Your task to perform on an android device: install app "LiveIn - Share Your Moment" Image 0: 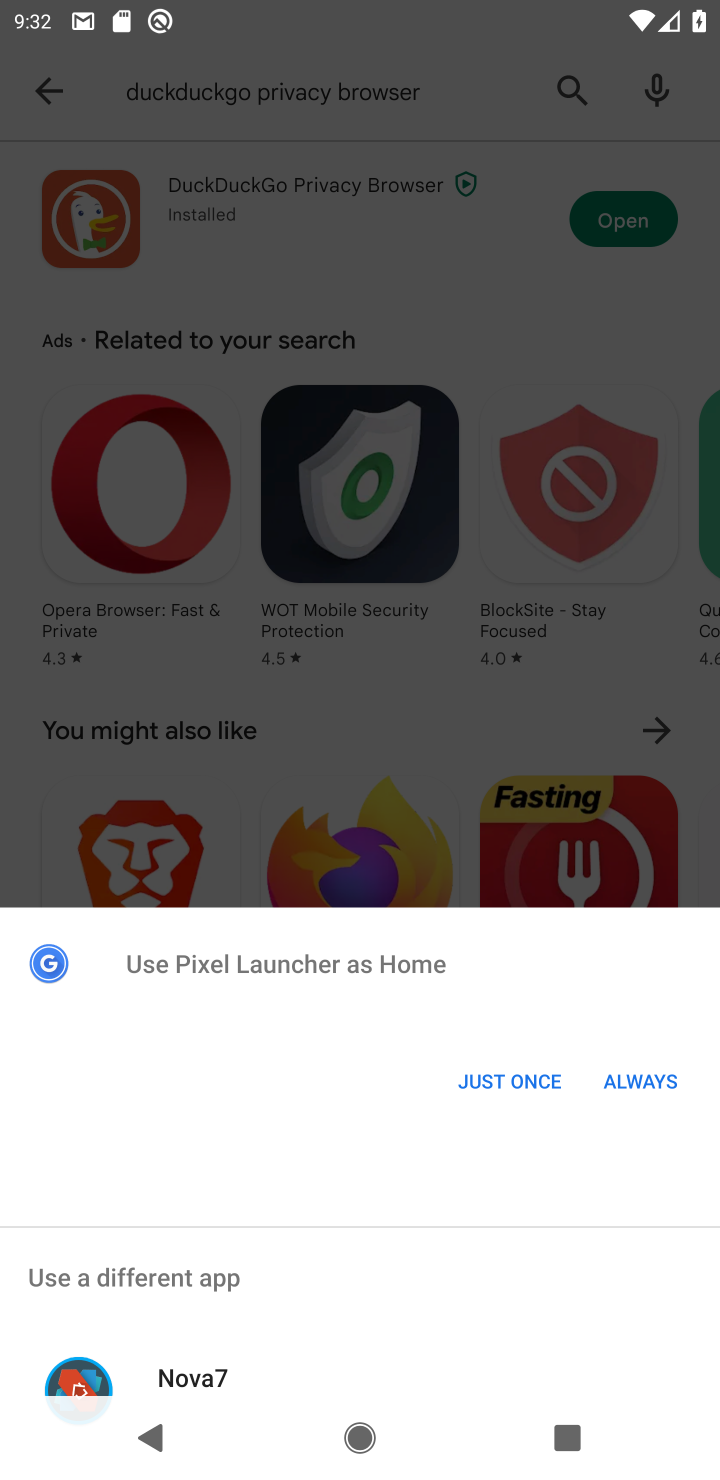
Step 0: press back button
Your task to perform on an android device: install app "LiveIn - Share Your Moment" Image 1: 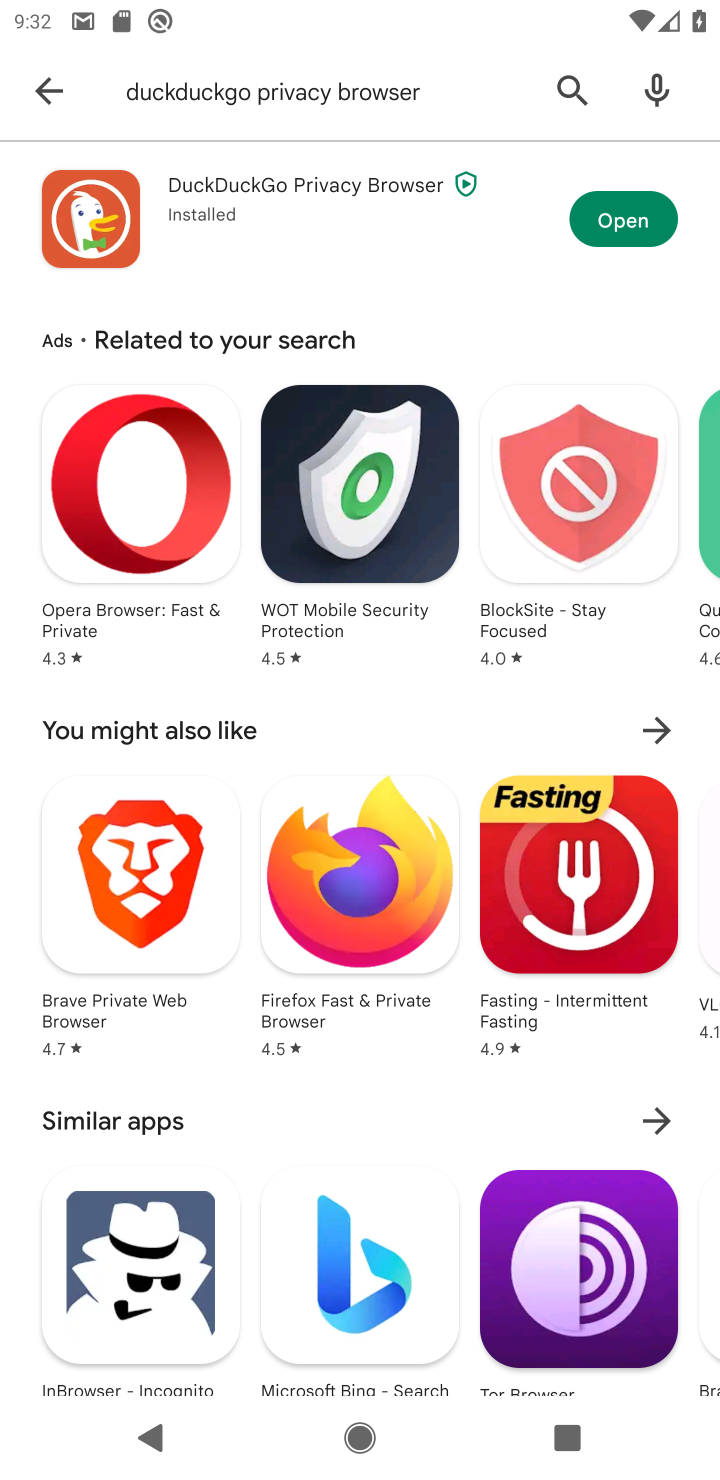
Step 1: click (570, 86)
Your task to perform on an android device: install app "LiveIn - Share Your Moment" Image 2: 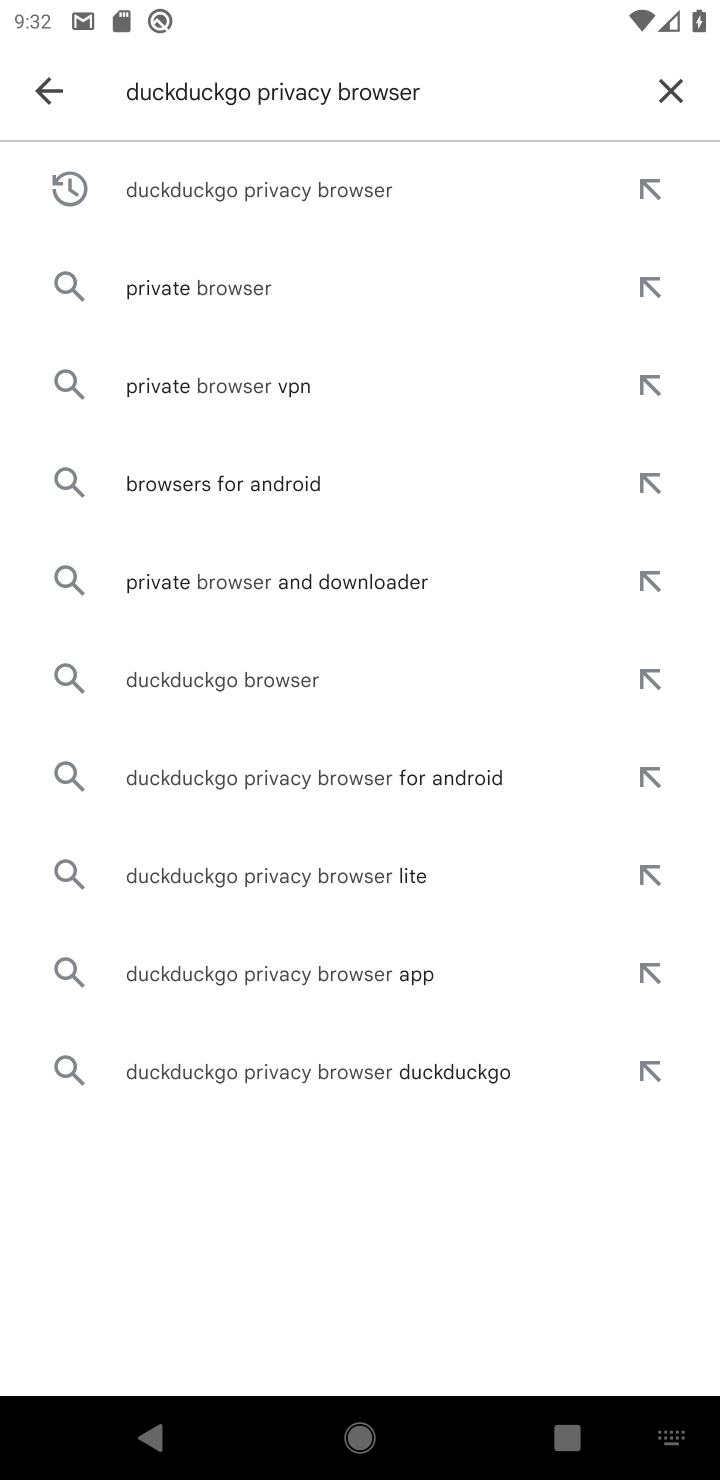
Step 2: click (671, 83)
Your task to perform on an android device: install app "LiveIn - Share Your Moment" Image 3: 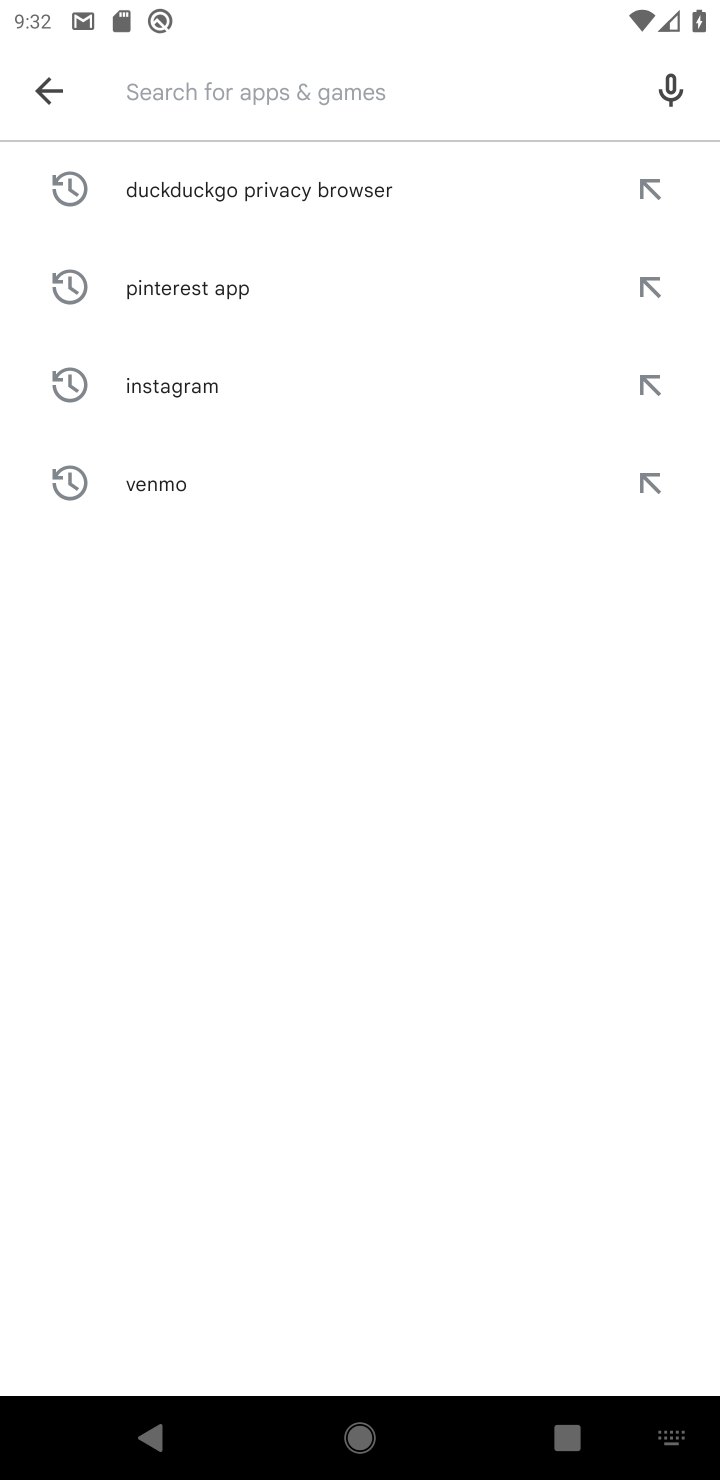
Step 3: click (332, 101)
Your task to perform on an android device: install app "LiveIn - Share Your Moment" Image 4: 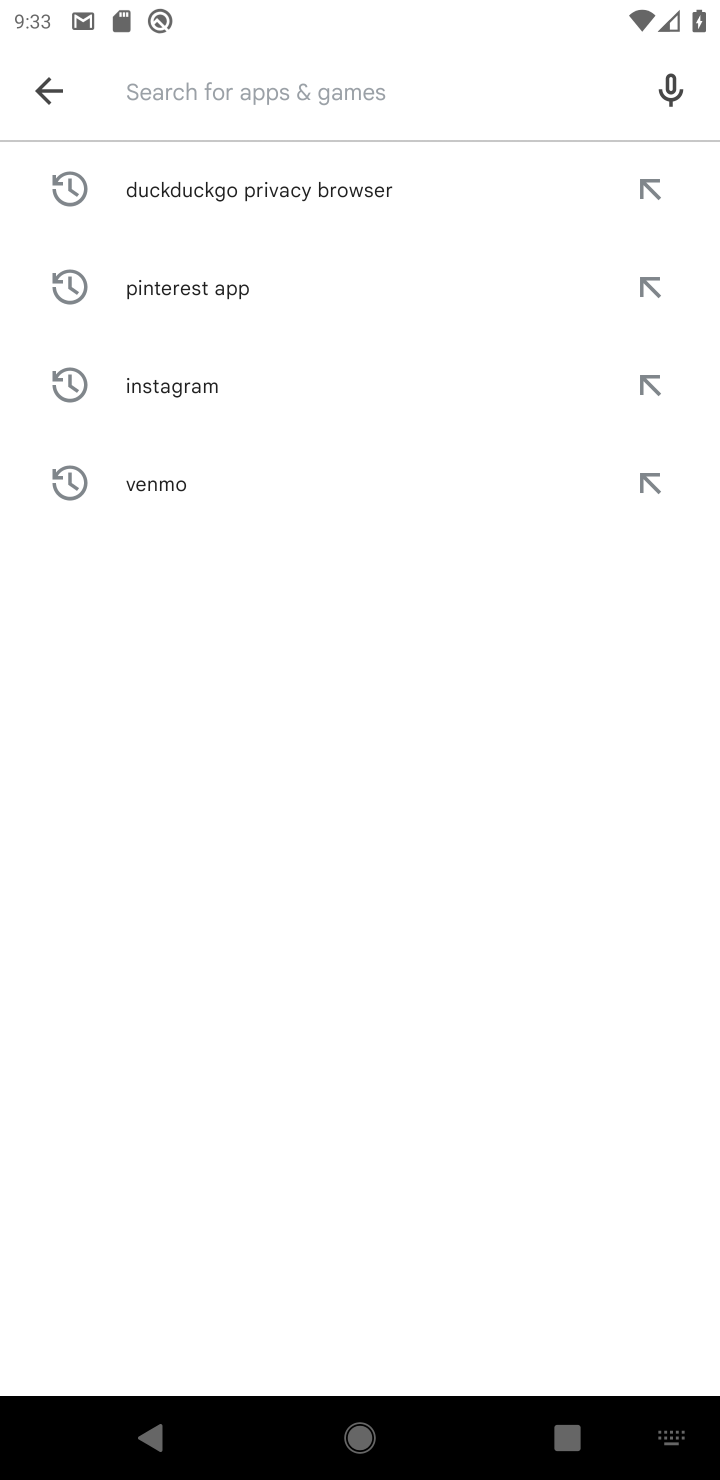
Step 4: type "livein share your monment"
Your task to perform on an android device: install app "LiveIn - Share Your Moment" Image 5: 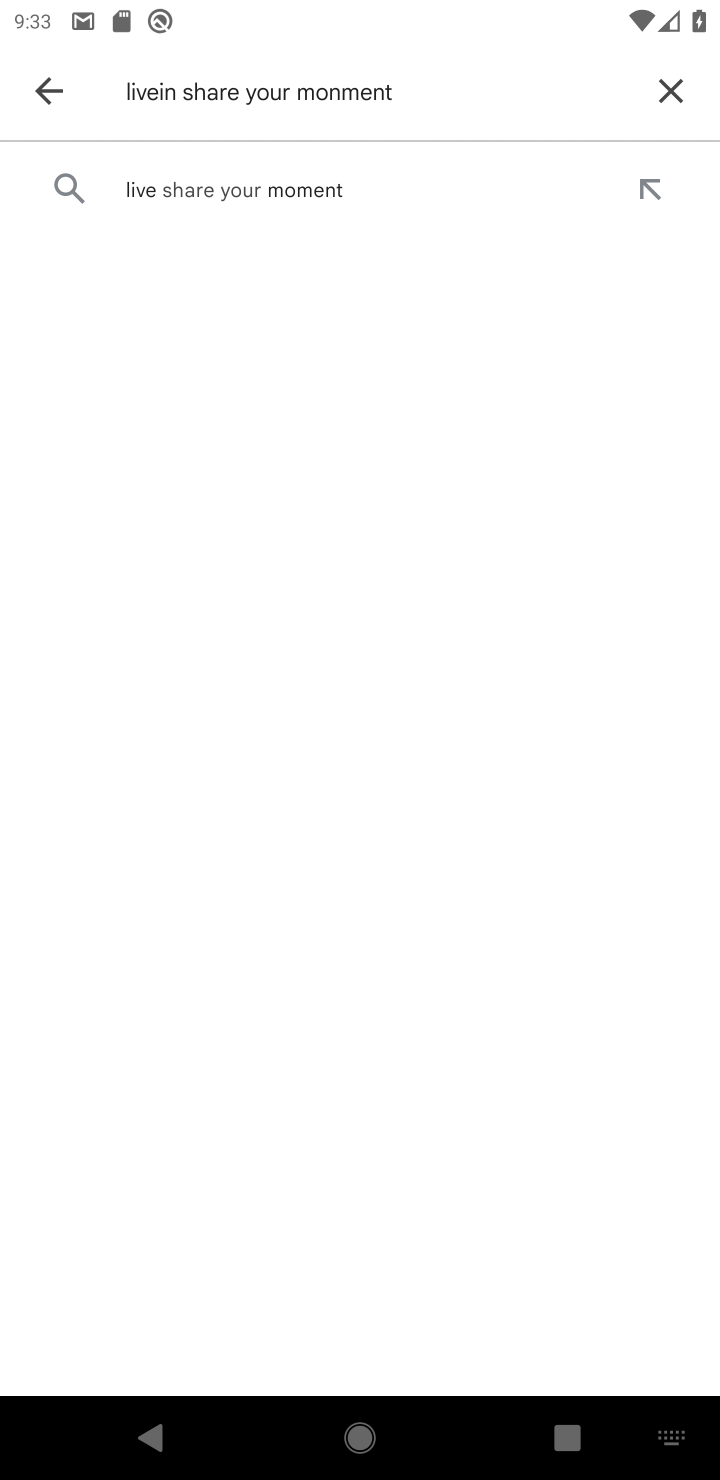
Step 5: click (436, 196)
Your task to perform on an android device: install app "LiveIn - Share Your Moment" Image 6: 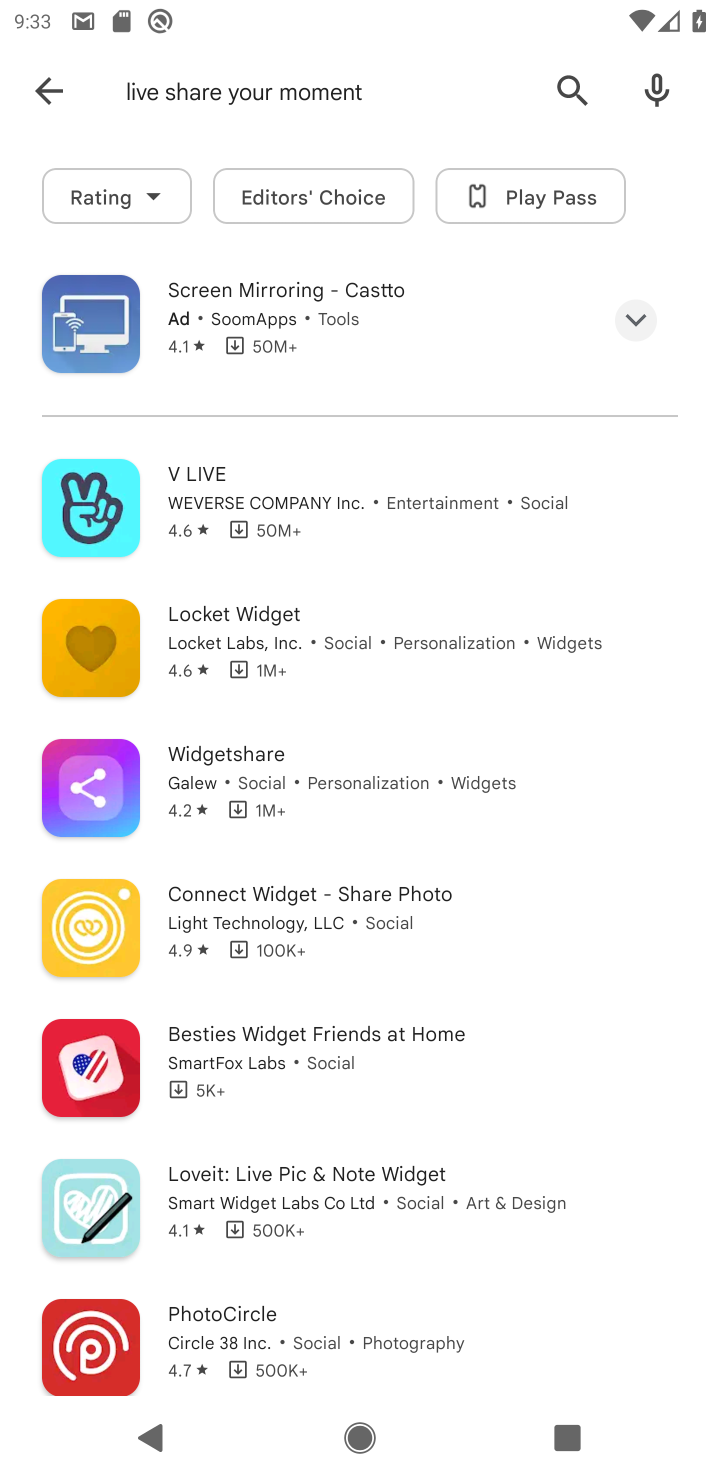
Step 6: task complete